Your task to perform on an android device: check storage Image 0: 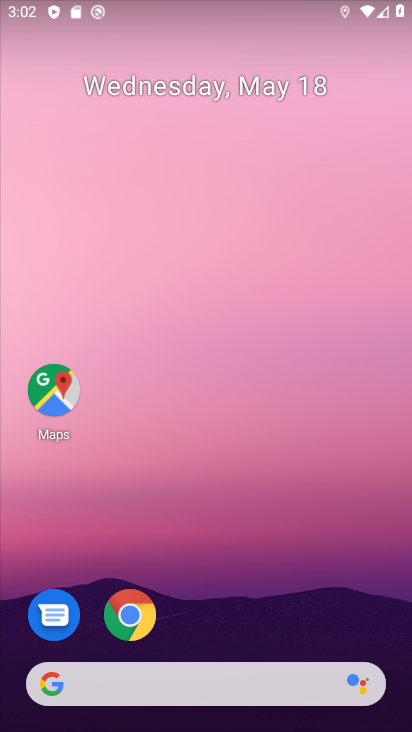
Step 0: drag from (237, 645) to (314, 144)
Your task to perform on an android device: check storage Image 1: 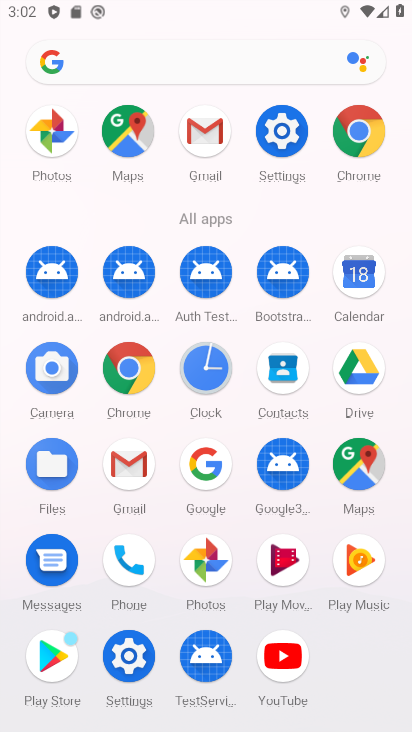
Step 1: drag from (174, 605) to (220, 438)
Your task to perform on an android device: check storage Image 2: 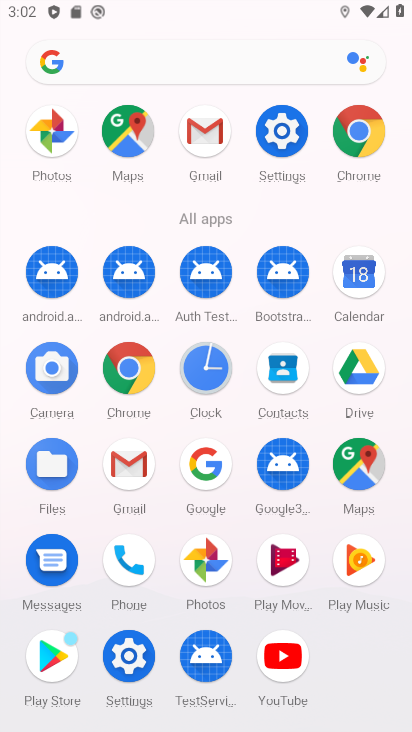
Step 2: click (128, 667)
Your task to perform on an android device: check storage Image 3: 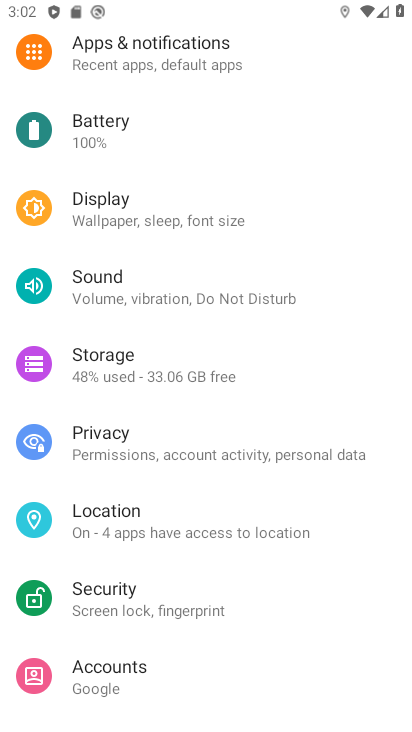
Step 3: click (200, 368)
Your task to perform on an android device: check storage Image 4: 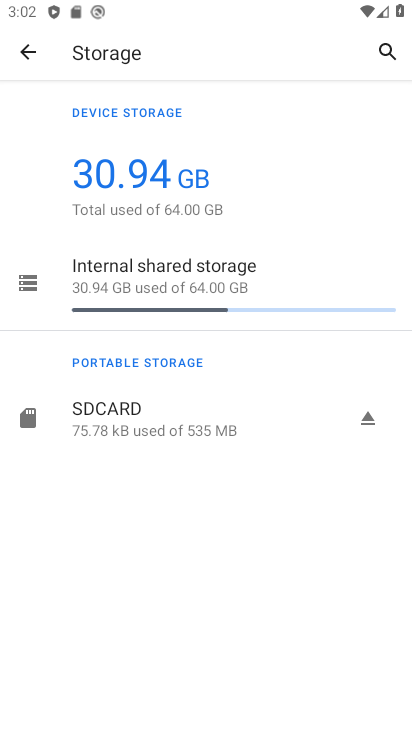
Step 4: task complete